Your task to perform on an android device: Search for pizza restaurants on Maps Image 0: 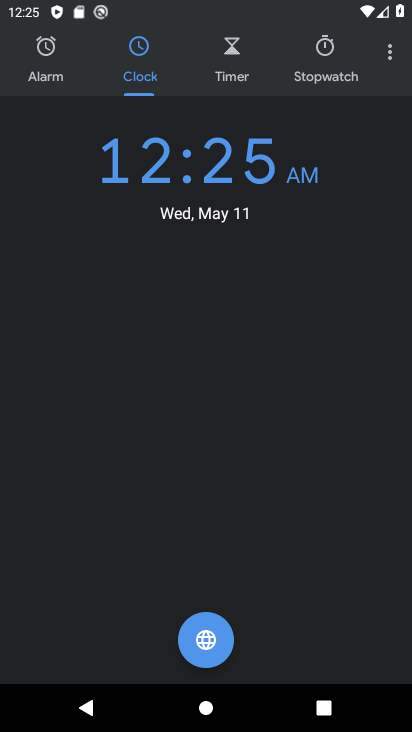
Step 0: press back button
Your task to perform on an android device: Search for pizza restaurants on Maps Image 1: 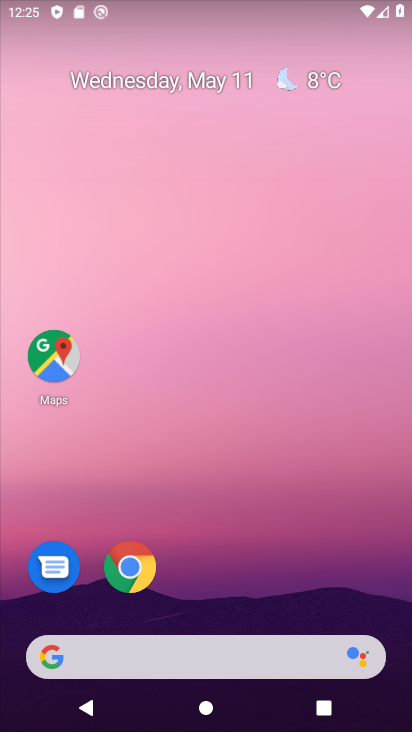
Step 1: click (45, 358)
Your task to perform on an android device: Search for pizza restaurants on Maps Image 2: 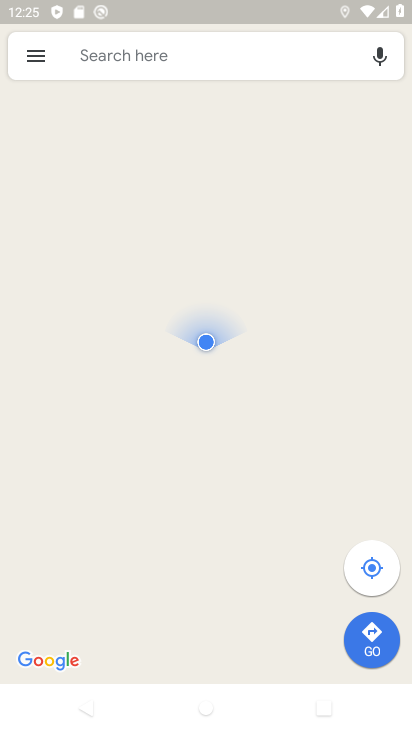
Step 2: click (170, 45)
Your task to perform on an android device: Search for pizza restaurants on Maps Image 3: 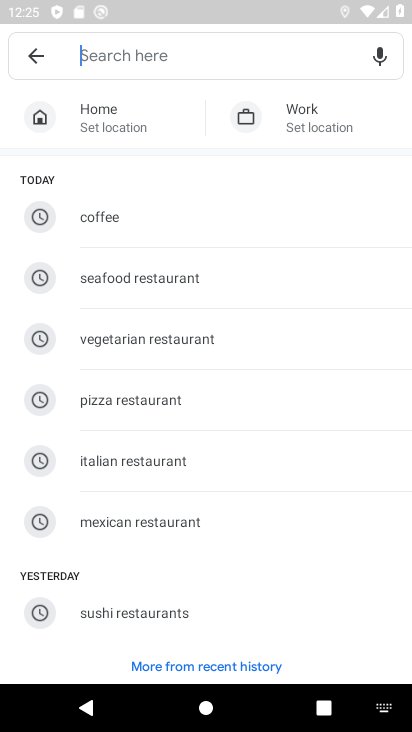
Step 3: type "Pizza restaurants"
Your task to perform on an android device: Search for pizza restaurants on Maps Image 4: 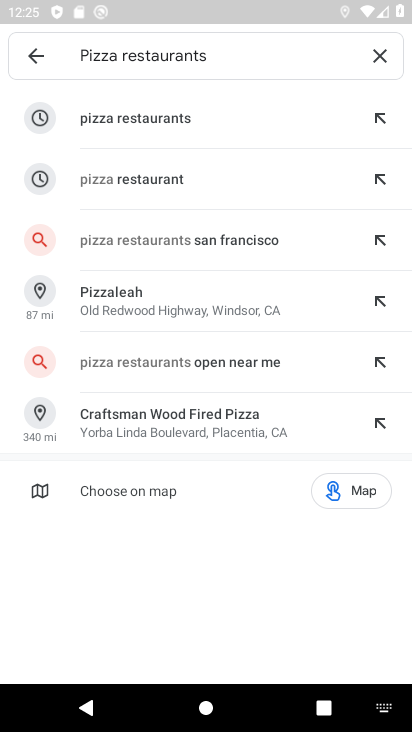
Step 4: click (181, 131)
Your task to perform on an android device: Search for pizza restaurants on Maps Image 5: 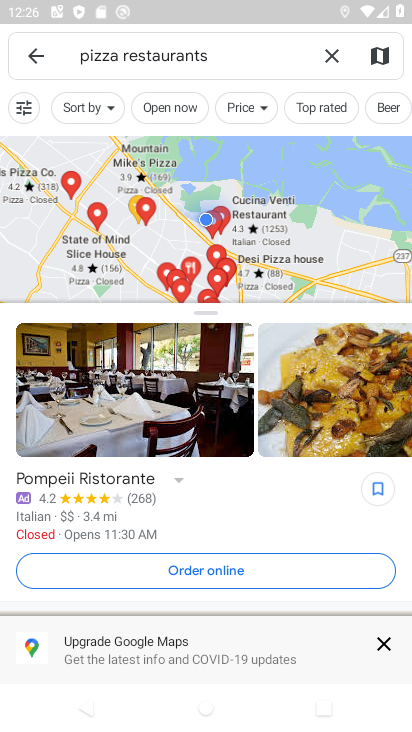
Step 5: task complete